Your task to perform on an android device: choose inbox layout in the gmail app Image 0: 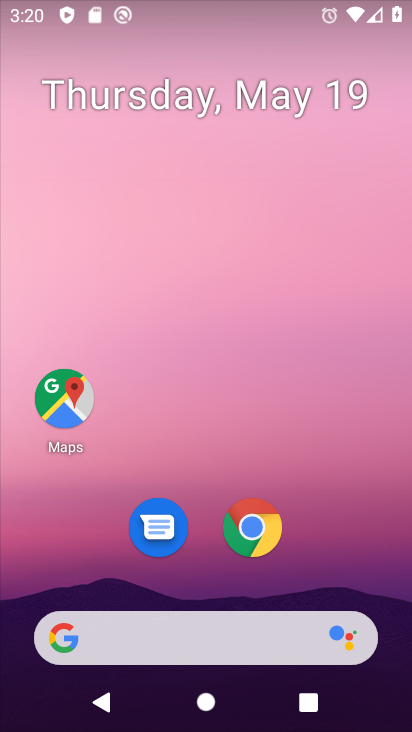
Step 0: drag from (327, 568) to (334, 111)
Your task to perform on an android device: choose inbox layout in the gmail app Image 1: 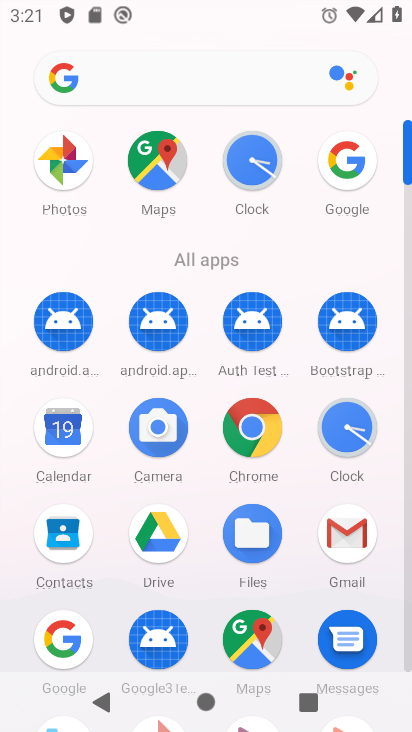
Step 1: click (346, 521)
Your task to perform on an android device: choose inbox layout in the gmail app Image 2: 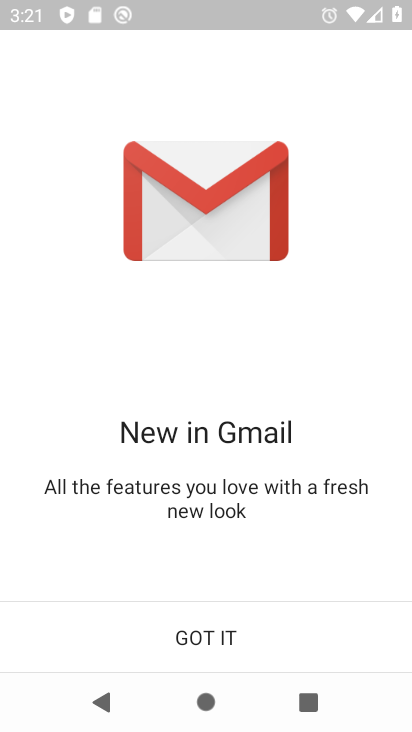
Step 2: click (253, 631)
Your task to perform on an android device: choose inbox layout in the gmail app Image 3: 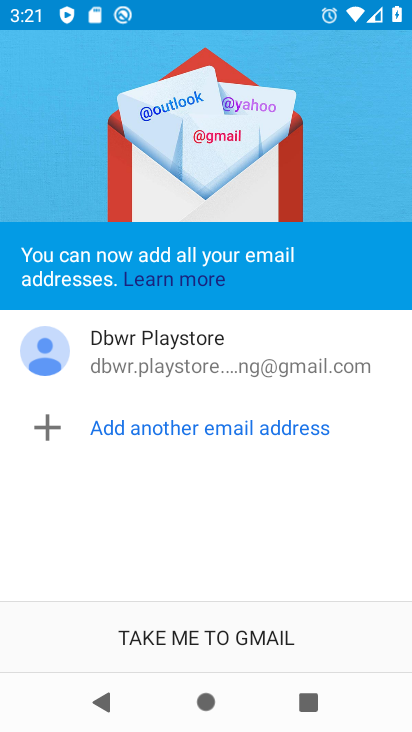
Step 3: click (239, 644)
Your task to perform on an android device: choose inbox layout in the gmail app Image 4: 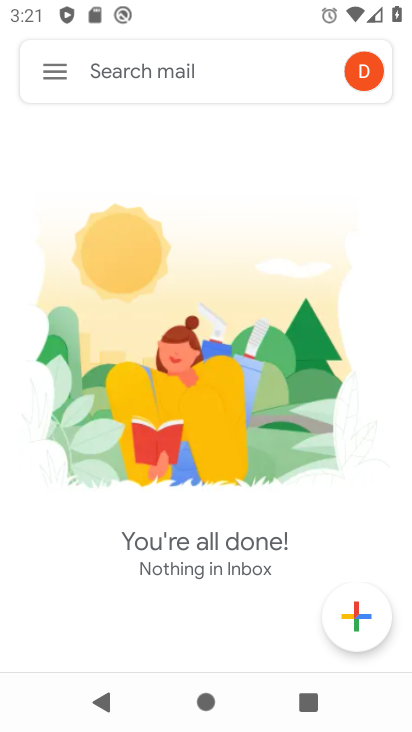
Step 4: click (48, 74)
Your task to perform on an android device: choose inbox layout in the gmail app Image 5: 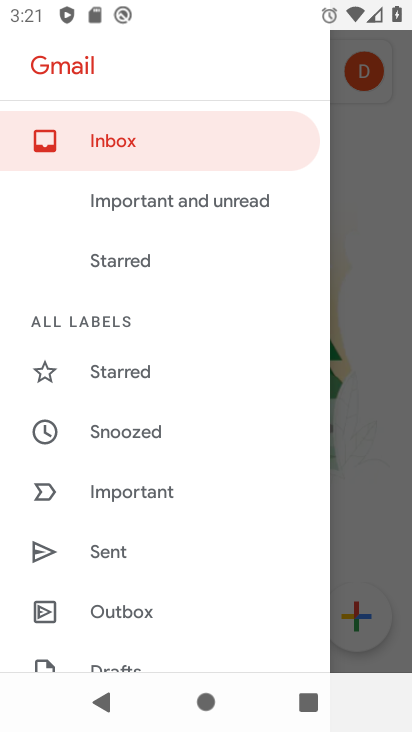
Step 5: task complete